Your task to perform on an android device: turn off data saver in the chrome app Image 0: 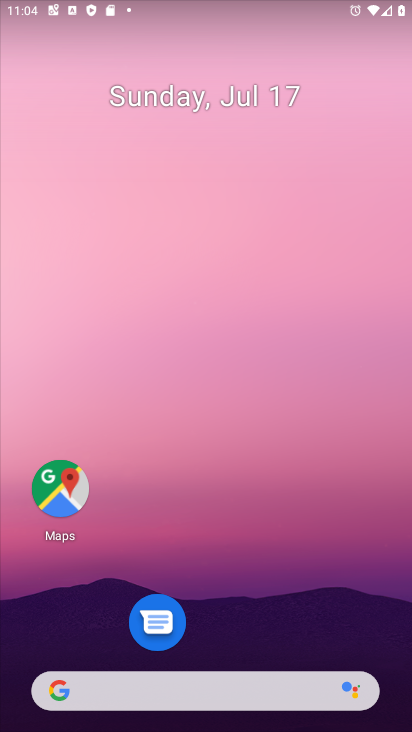
Step 0: drag from (271, 597) to (231, 85)
Your task to perform on an android device: turn off data saver in the chrome app Image 1: 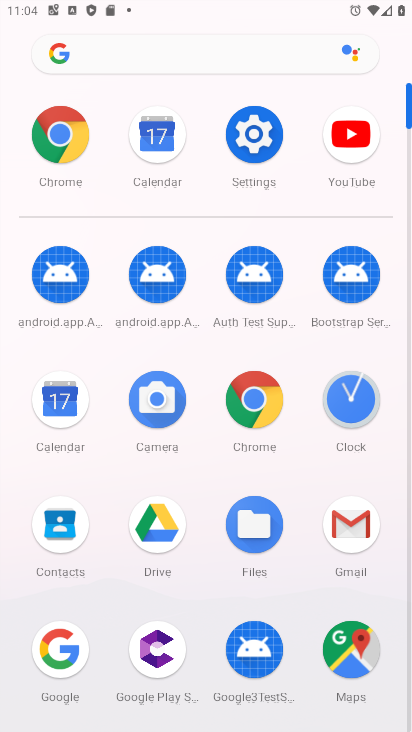
Step 1: click (249, 408)
Your task to perform on an android device: turn off data saver in the chrome app Image 2: 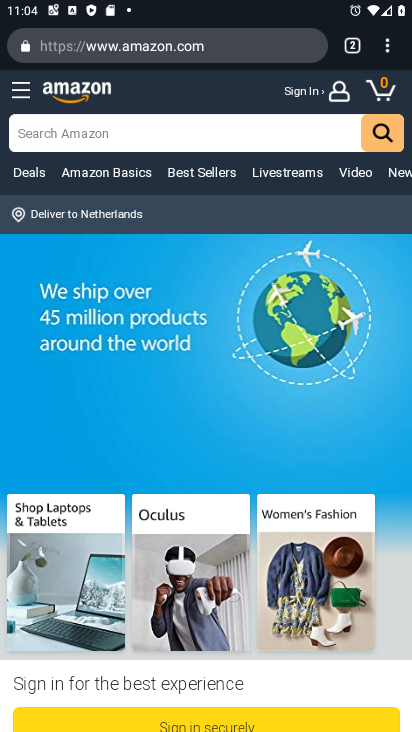
Step 2: click (382, 39)
Your task to perform on an android device: turn off data saver in the chrome app Image 3: 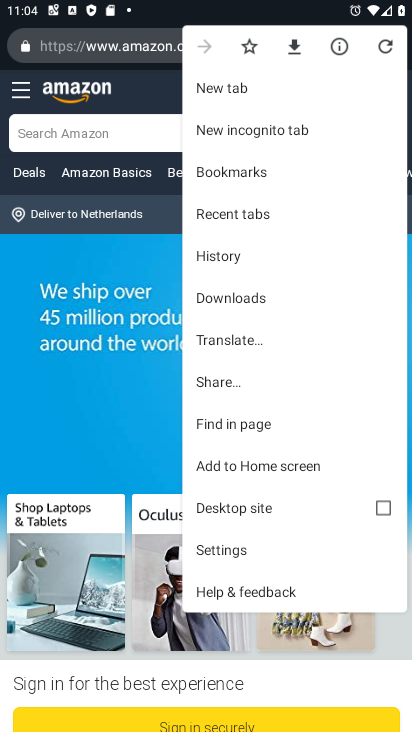
Step 3: click (270, 548)
Your task to perform on an android device: turn off data saver in the chrome app Image 4: 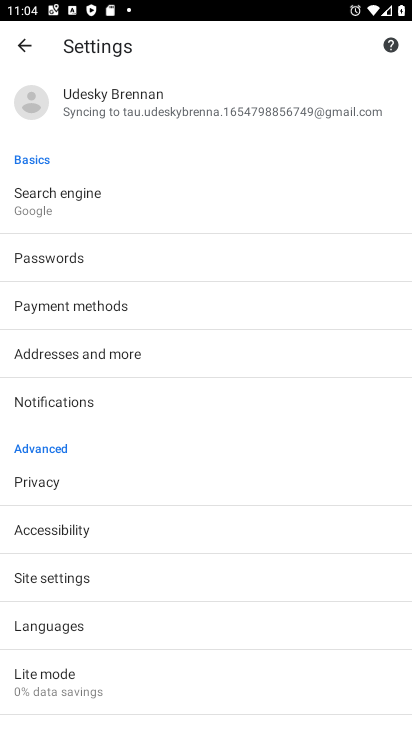
Step 4: drag from (265, 641) to (232, 246)
Your task to perform on an android device: turn off data saver in the chrome app Image 5: 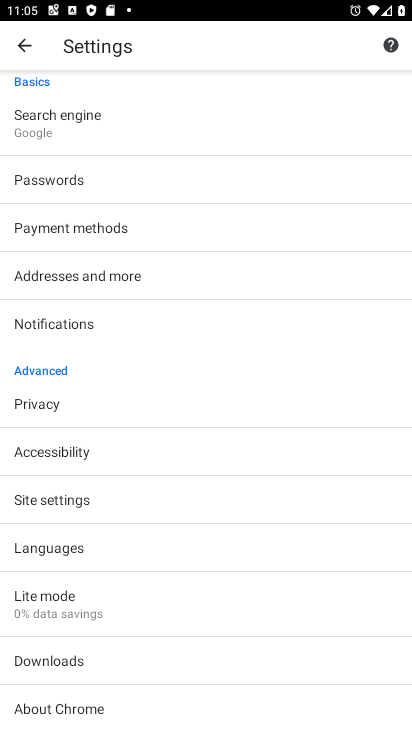
Step 5: click (126, 610)
Your task to perform on an android device: turn off data saver in the chrome app Image 6: 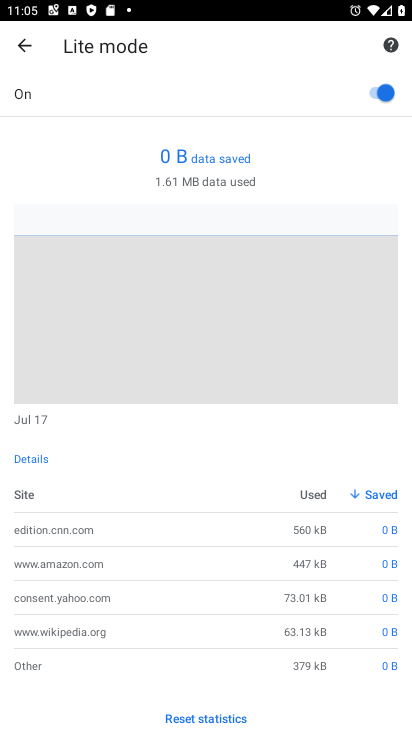
Step 6: click (385, 91)
Your task to perform on an android device: turn off data saver in the chrome app Image 7: 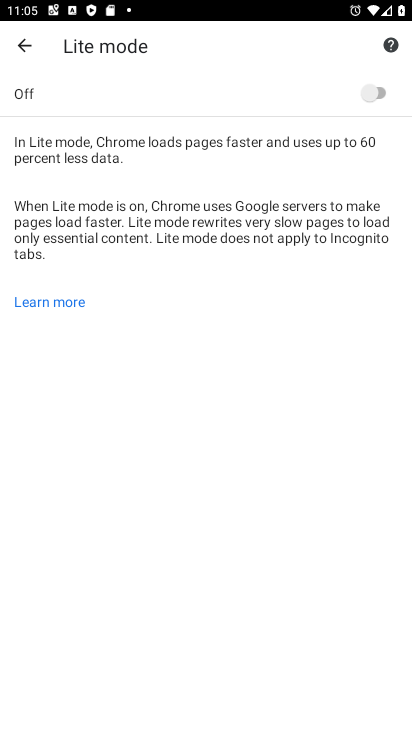
Step 7: task complete